Your task to perform on an android device: Check the weather Image 0: 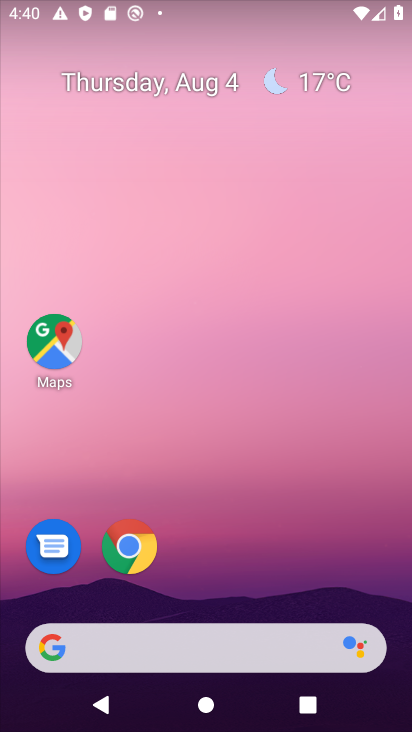
Step 0: drag from (226, 486) to (262, 69)
Your task to perform on an android device: Check the weather Image 1: 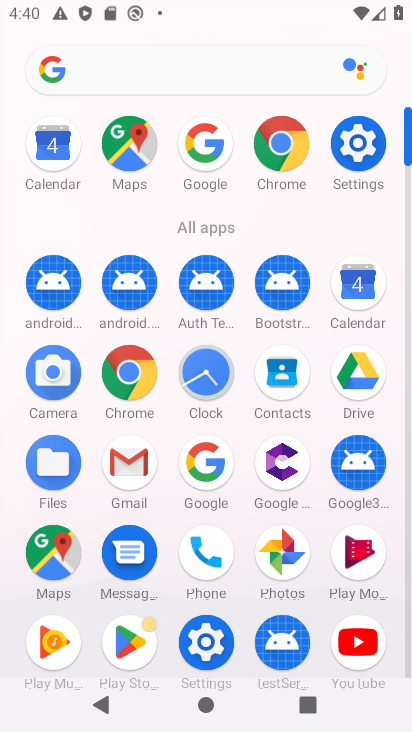
Step 1: click (202, 470)
Your task to perform on an android device: Check the weather Image 2: 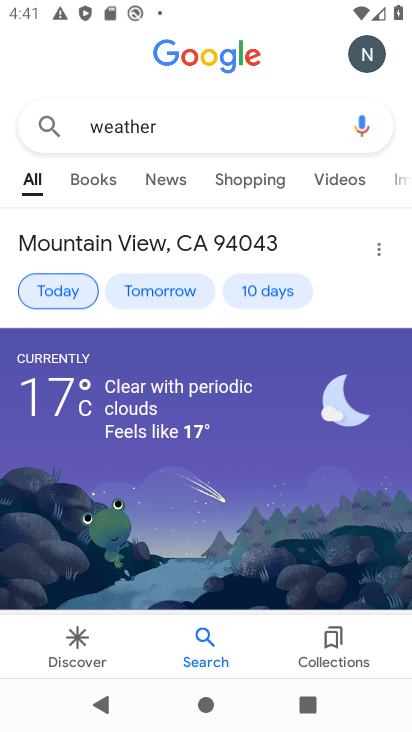
Step 2: task complete